Your task to perform on an android device: set the timer Image 0: 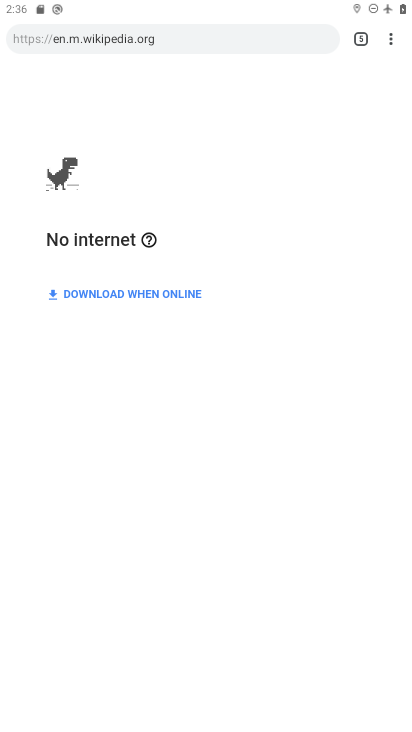
Step 0: press home button
Your task to perform on an android device: set the timer Image 1: 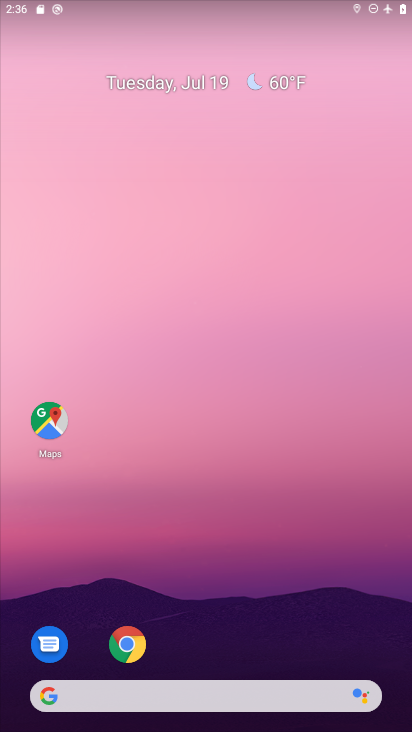
Step 1: drag from (183, 675) to (163, 94)
Your task to perform on an android device: set the timer Image 2: 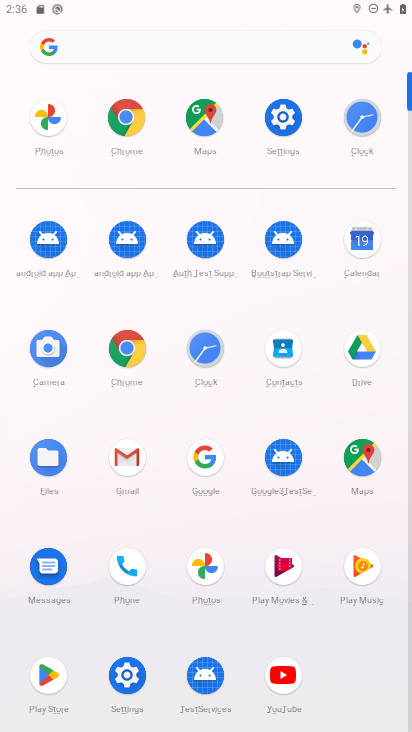
Step 2: click (207, 348)
Your task to perform on an android device: set the timer Image 3: 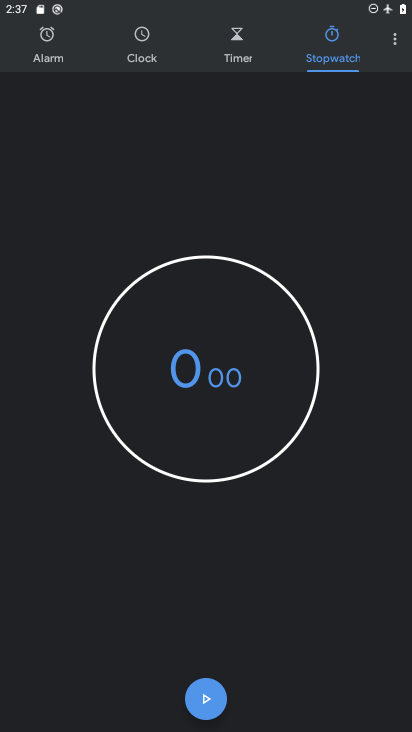
Step 3: click (238, 42)
Your task to perform on an android device: set the timer Image 4: 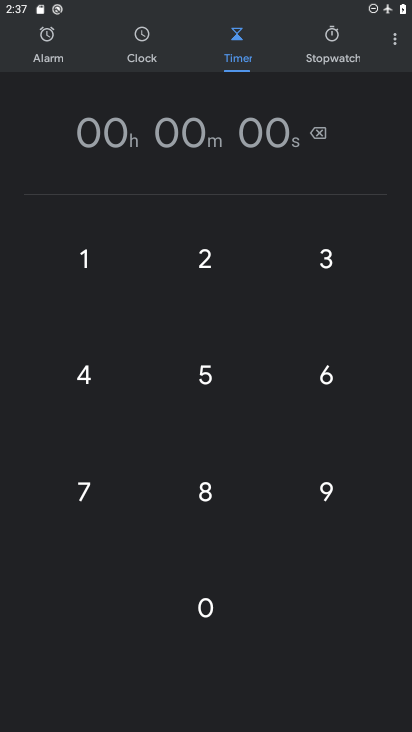
Step 4: click (208, 251)
Your task to perform on an android device: set the timer Image 5: 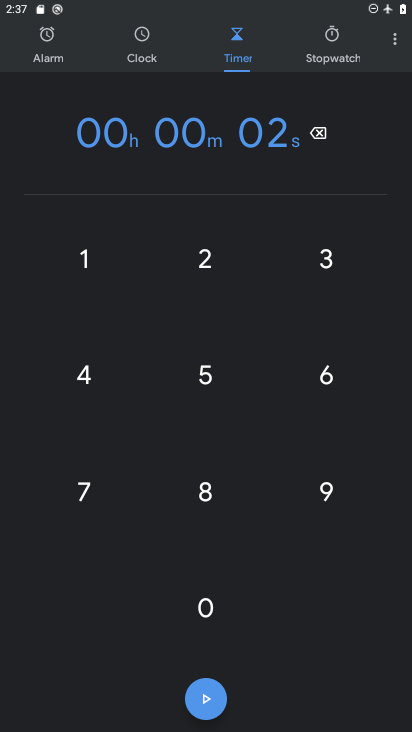
Step 5: task complete